Your task to perform on an android device: empty trash in google photos Image 0: 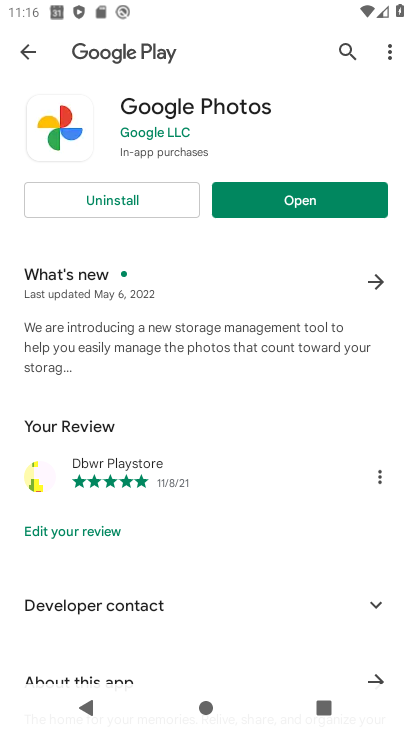
Step 0: press home button
Your task to perform on an android device: empty trash in google photos Image 1: 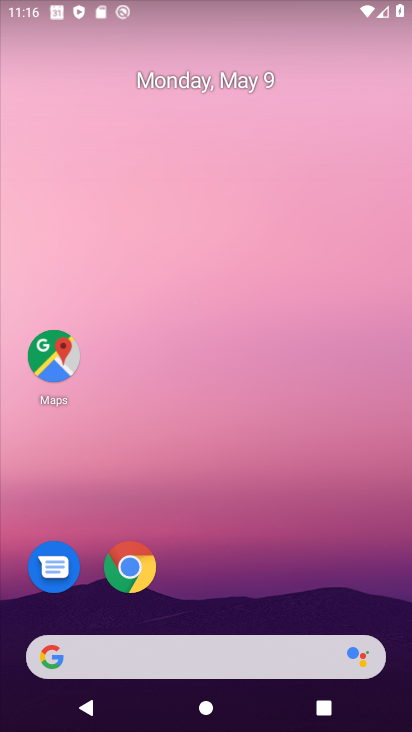
Step 1: drag from (393, 627) to (302, 67)
Your task to perform on an android device: empty trash in google photos Image 2: 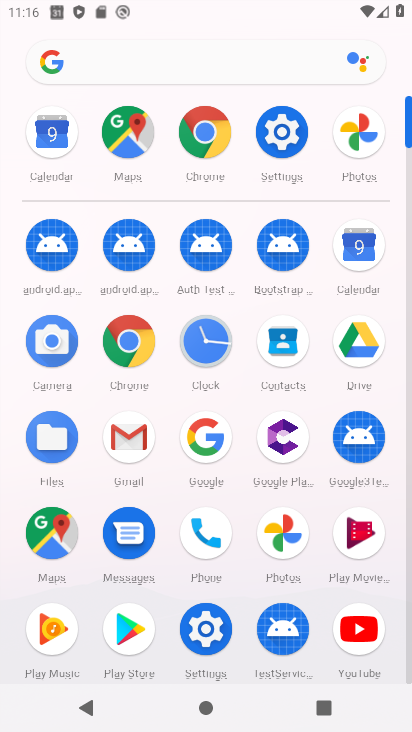
Step 2: click (276, 538)
Your task to perform on an android device: empty trash in google photos Image 3: 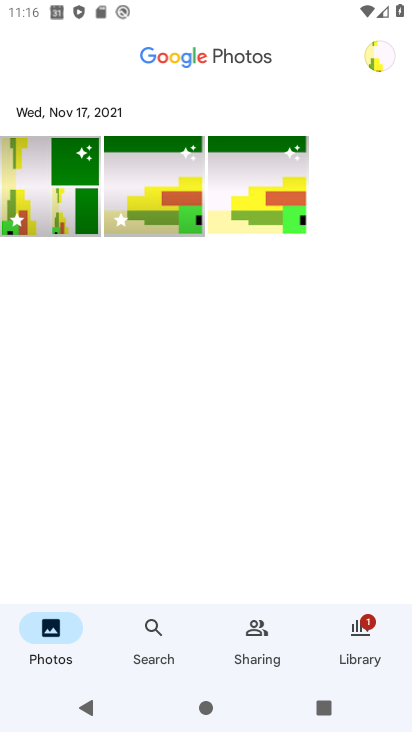
Step 3: click (349, 651)
Your task to perform on an android device: empty trash in google photos Image 4: 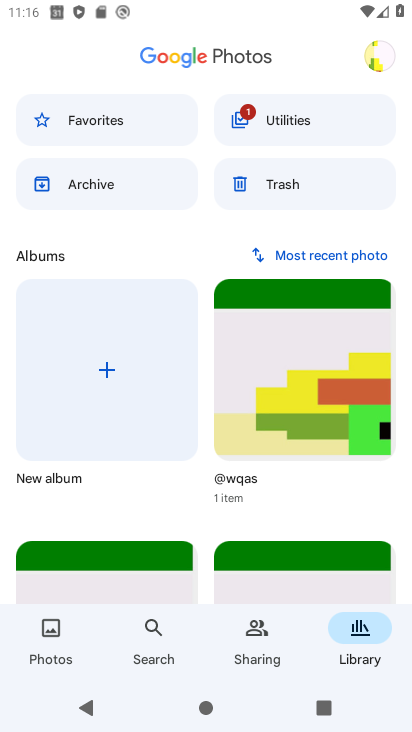
Step 4: click (309, 188)
Your task to perform on an android device: empty trash in google photos Image 5: 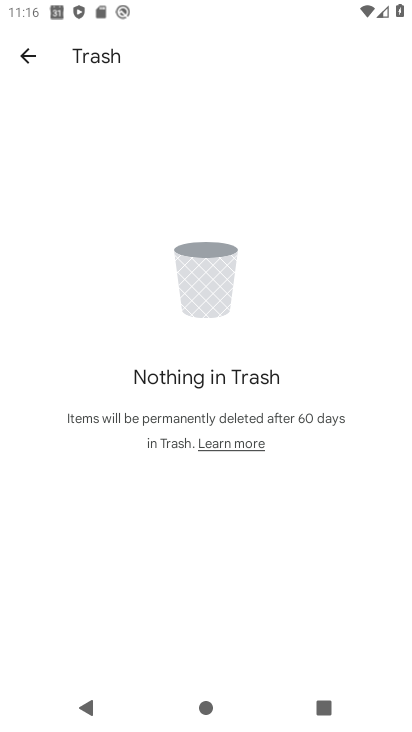
Step 5: task complete